Your task to perform on an android device: turn on translation in the chrome app Image 0: 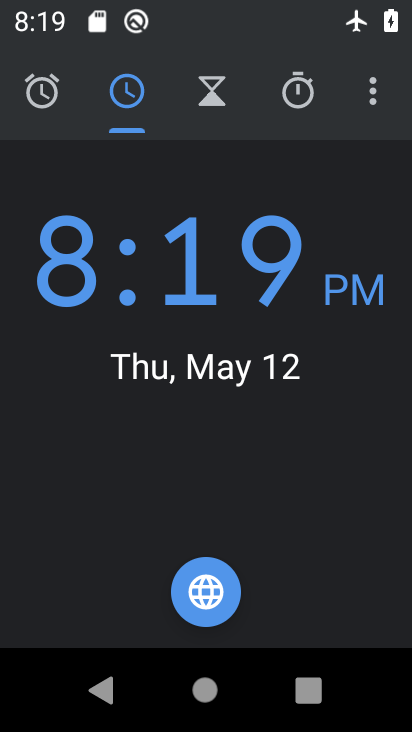
Step 0: press home button
Your task to perform on an android device: turn on translation in the chrome app Image 1: 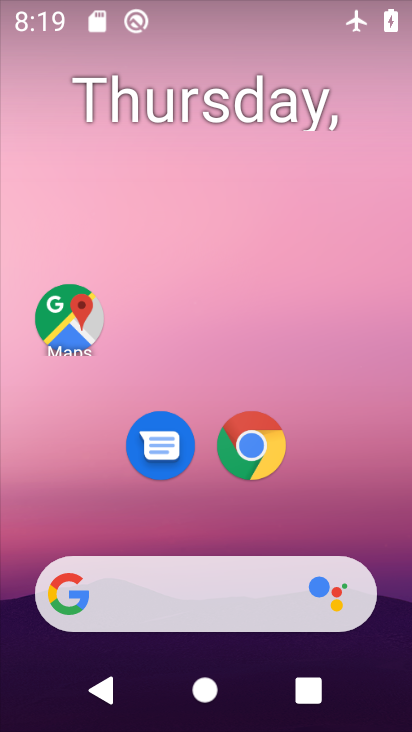
Step 1: click (258, 444)
Your task to perform on an android device: turn on translation in the chrome app Image 2: 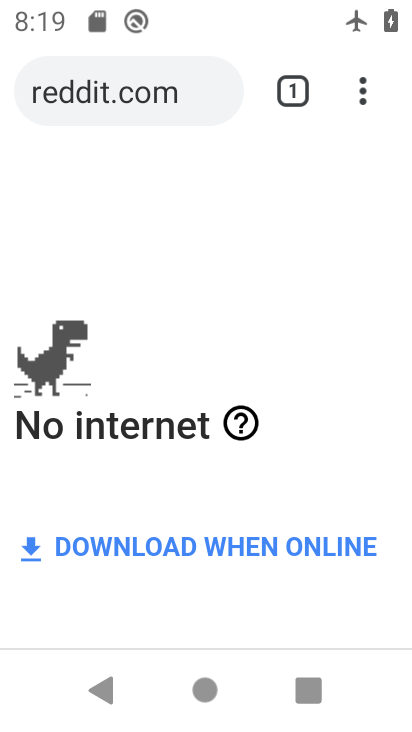
Step 2: click (365, 89)
Your task to perform on an android device: turn on translation in the chrome app Image 3: 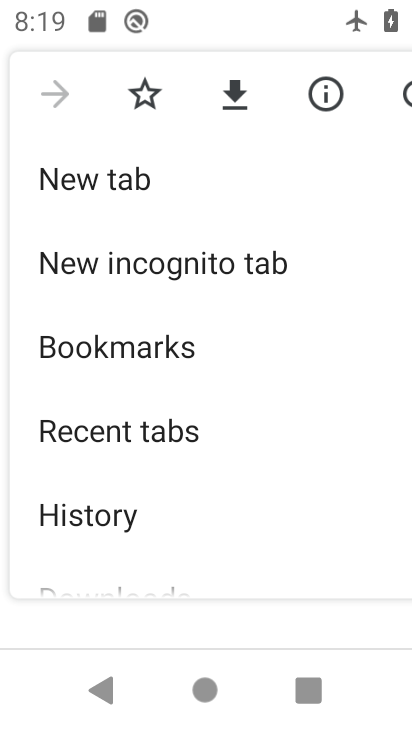
Step 3: drag from (207, 527) to (220, 199)
Your task to perform on an android device: turn on translation in the chrome app Image 4: 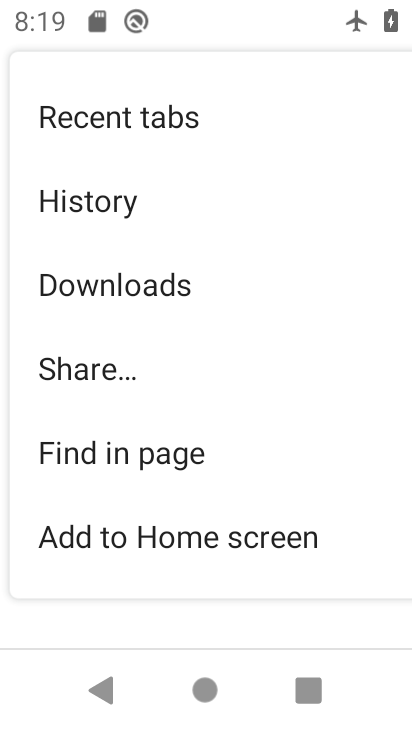
Step 4: drag from (197, 507) to (203, 241)
Your task to perform on an android device: turn on translation in the chrome app Image 5: 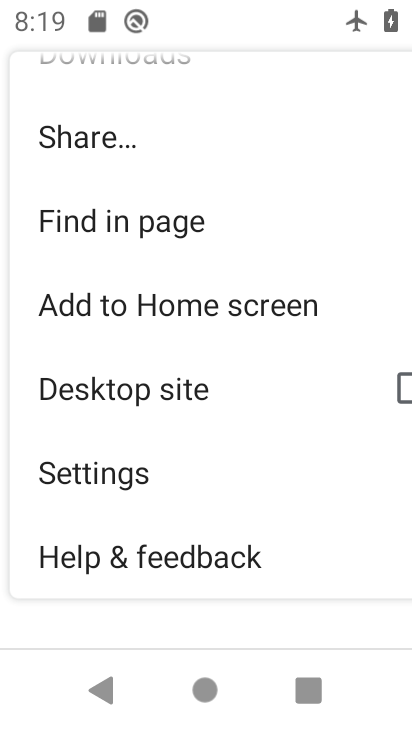
Step 5: click (103, 466)
Your task to perform on an android device: turn on translation in the chrome app Image 6: 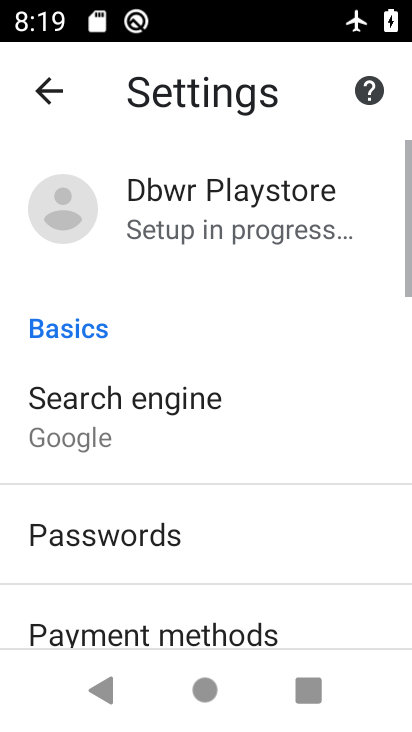
Step 6: drag from (145, 579) to (130, 185)
Your task to perform on an android device: turn on translation in the chrome app Image 7: 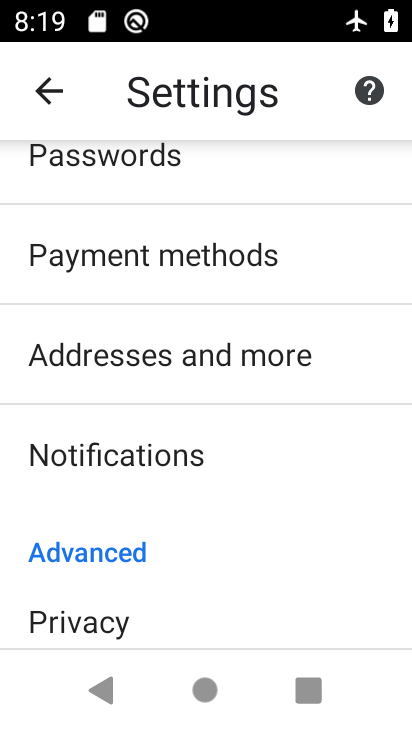
Step 7: drag from (268, 613) to (225, 280)
Your task to perform on an android device: turn on translation in the chrome app Image 8: 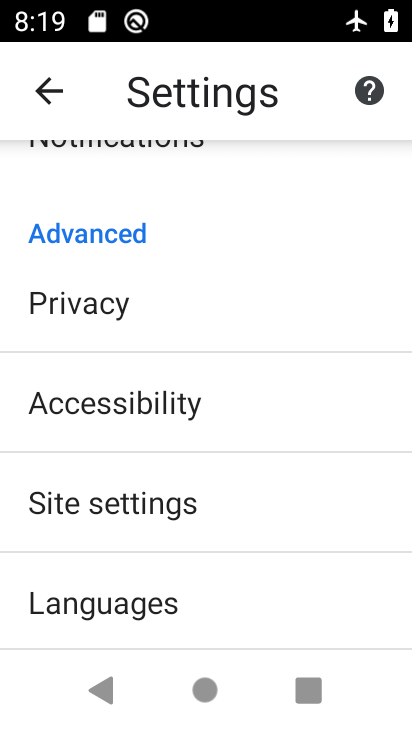
Step 8: click (151, 602)
Your task to perform on an android device: turn on translation in the chrome app Image 9: 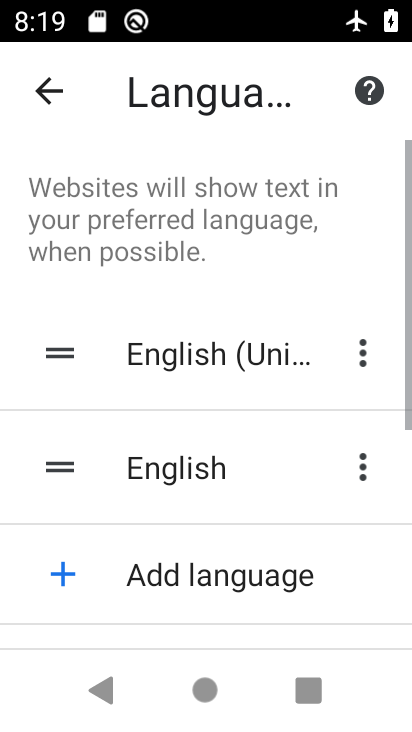
Step 9: task complete